Your task to perform on an android device: Open the map Image 0: 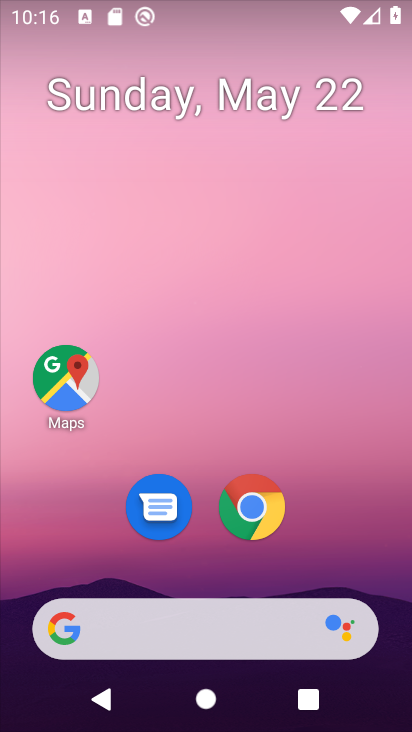
Step 0: click (27, 363)
Your task to perform on an android device: Open the map Image 1: 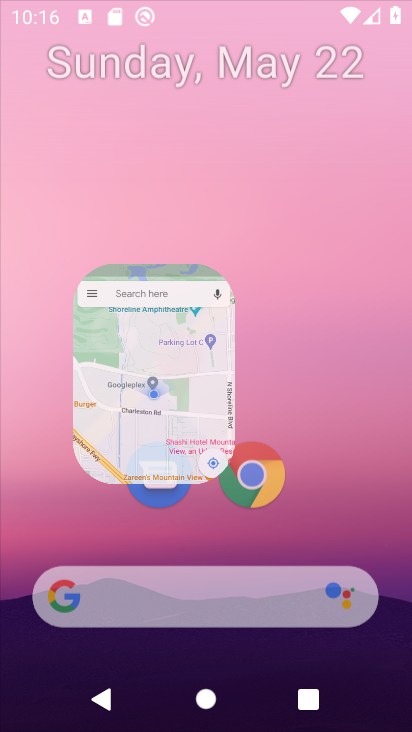
Step 1: click (52, 369)
Your task to perform on an android device: Open the map Image 2: 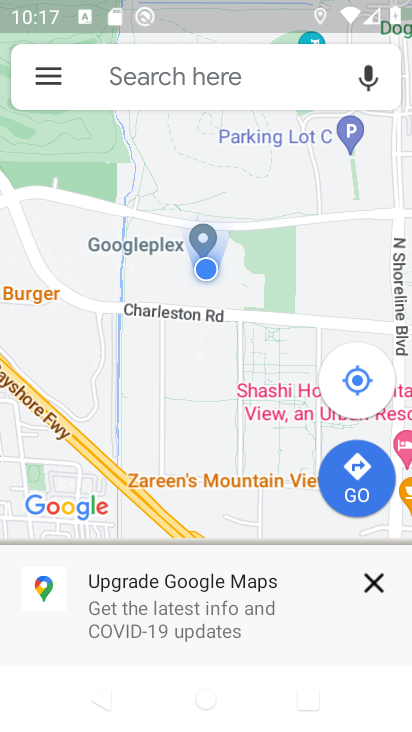
Step 2: task complete